Your task to perform on an android device: add a label to a message in the gmail app Image 0: 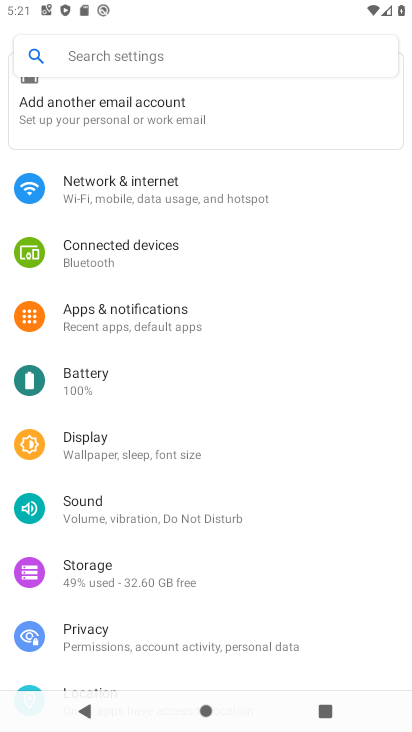
Step 0: press home button
Your task to perform on an android device: add a label to a message in the gmail app Image 1: 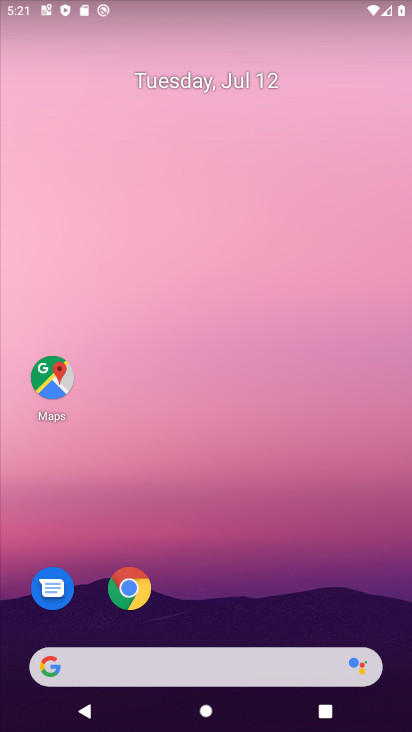
Step 1: drag from (314, 500) to (347, 1)
Your task to perform on an android device: add a label to a message in the gmail app Image 2: 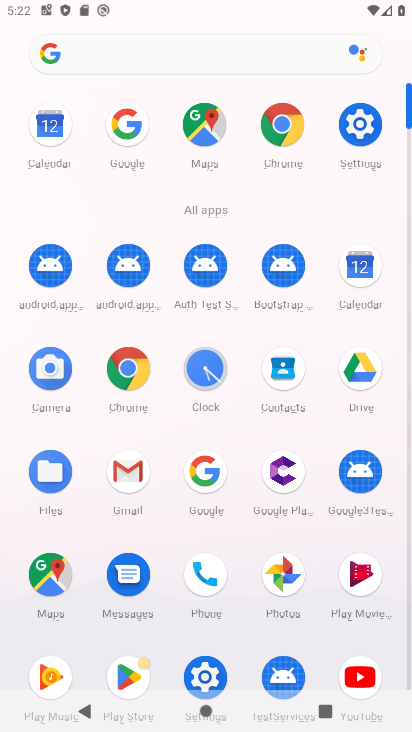
Step 2: click (111, 472)
Your task to perform on an android device: add a label to a message in the gmail app Image 3: 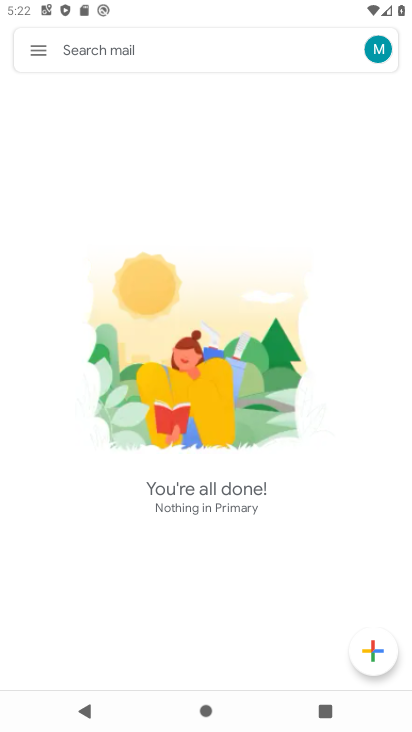
Step 3: task complete